Your task to perform on an android device: Open the phone app and click the voicemail tab. Image 0: 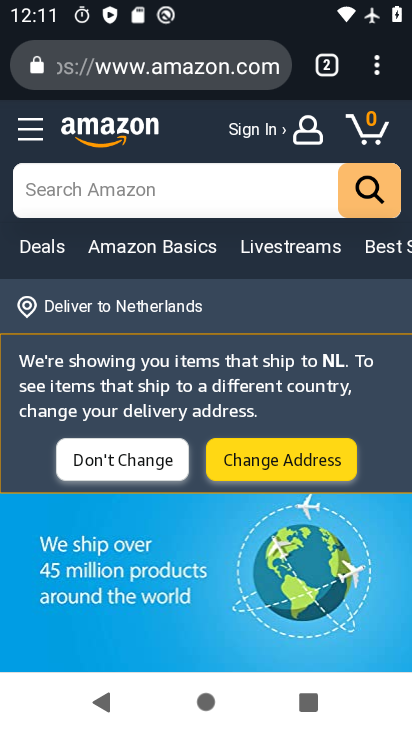
Step 0: press home button
Your task to perform on an android device: Open the phone app and click the voicemail tab. Image 1: 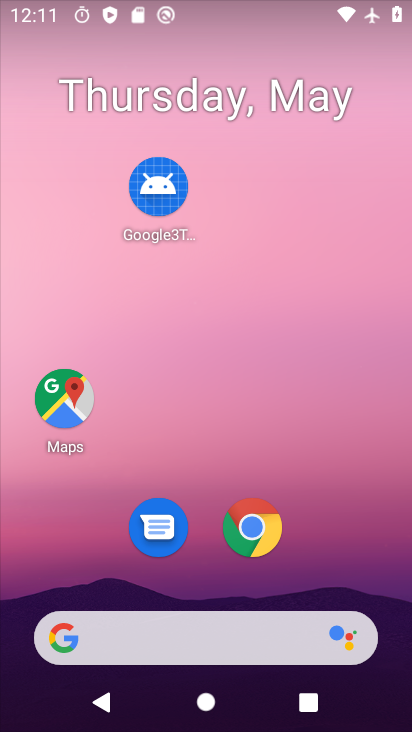
Step 1: drag from (205, 585) to (297, 104)
Your task to perform on an android device: Open the phone app and click the voicemail tab. Image 2: 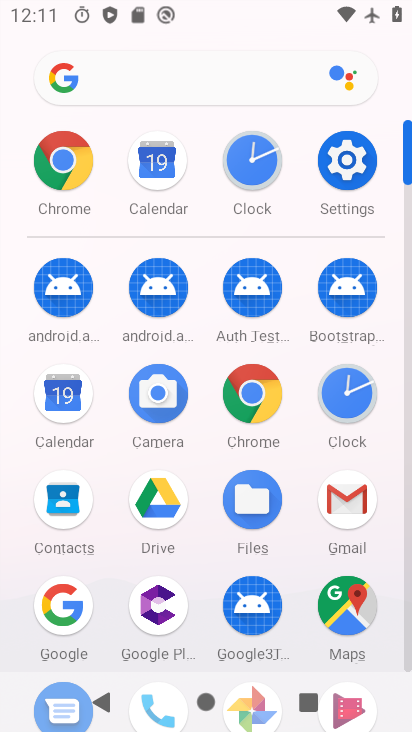
Step 2: drag from (202, 563) to (267, 151)
Your task to perform on an android device: Open the phone app and click the voicemail tab. Image 3: 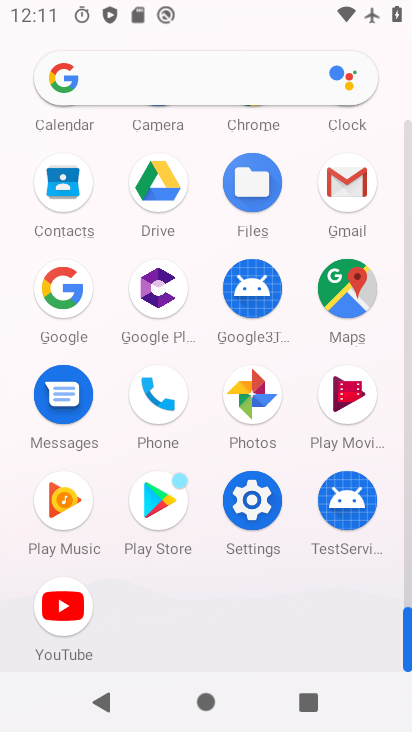
Step 3: click (151, 381)
Your task to perform on an android device: Open the phone app and click the voicemail tab. Image 4: 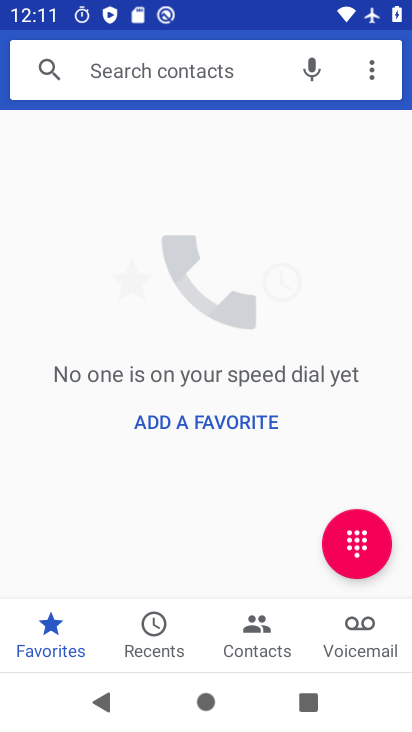
Step 4: click (360, 624)
Your task to perform on an android device: Open the phone app and click the voicemail tab. Image 5: 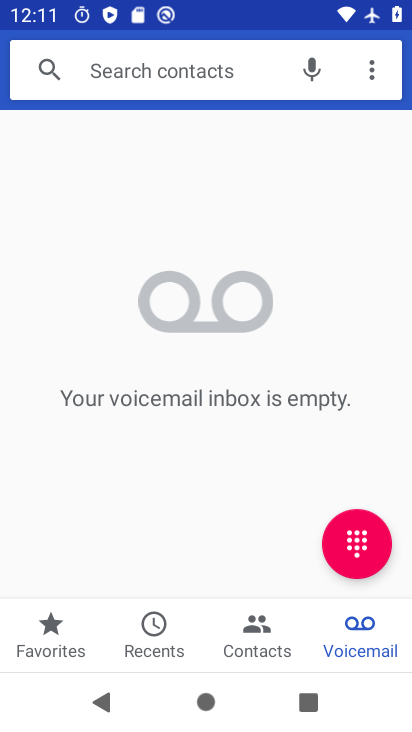
Step 5: task complete